Your task to perform on an android device: turn on the 12-hour format for clock Image 0: 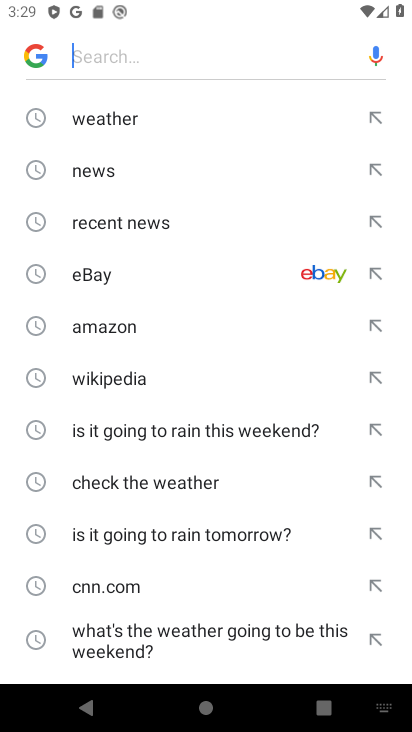
Step 0: press home button
Your task to perform on an android device: turn on the 12-hour format for clock Image 1: 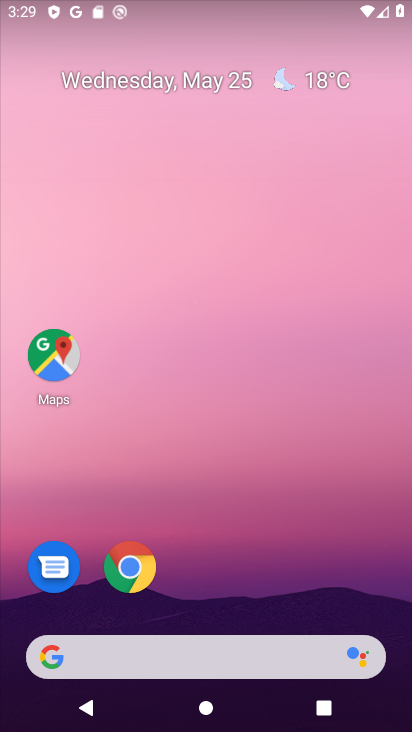
Step 1: drag from (373, 590) to (364, 156)
Your task to perform on an android device: turn on the 12-hour format for clock Image 2: 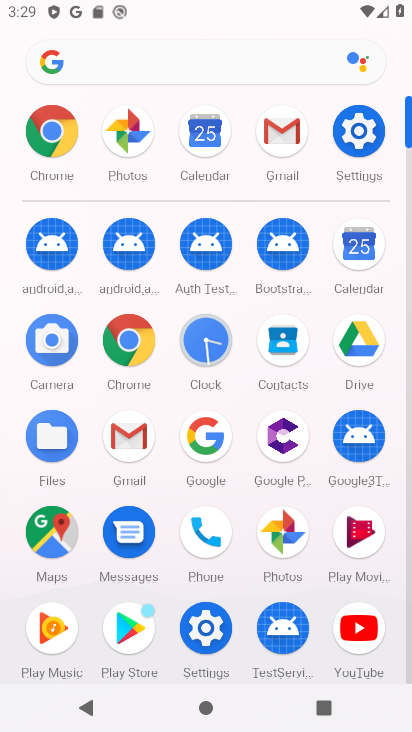
Step 2: click (213, 356)
Your task to perform on an android device: turn on the 12-hour format for clock Image 3: 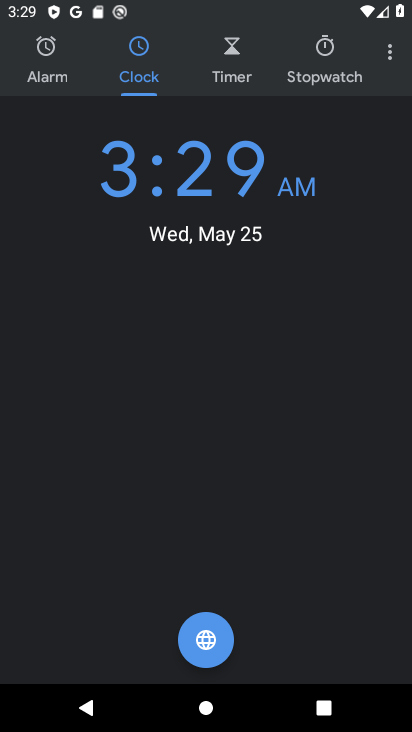
Step 3: click (389, 65)
Your task to perform on an android device: turn on the 12-hour format for clock Image 4: 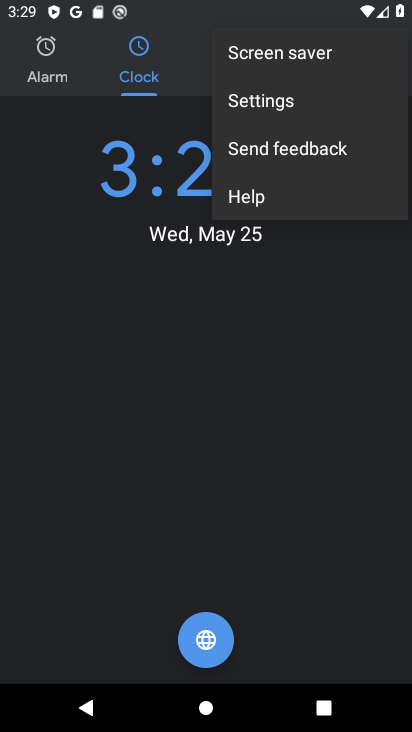
Step 4: click (322, 103)
Your task to perform on an android device: turn on the 12-hour format for clock Image 5: 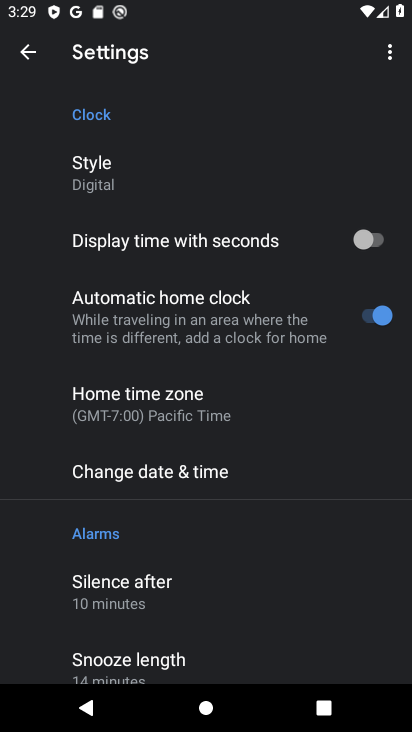
Step 5: drag from (308, 487) to (306, 388)
Your task to perform on an android device: turn on the 12-hour format for clock Image 6: 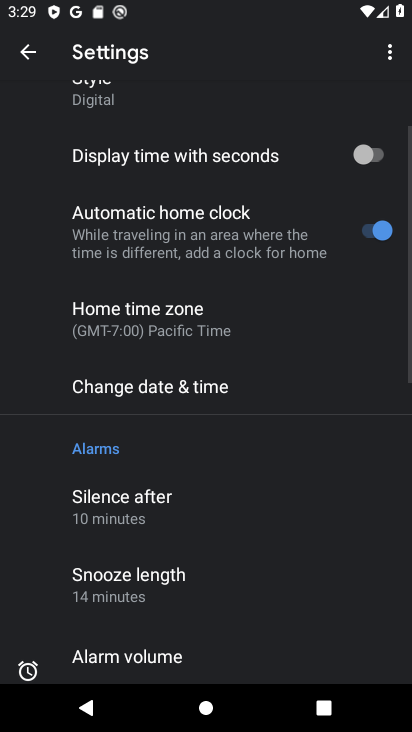
Step 6: drag from (317, 514) to (322, 418)
Your task to perform on an android device: turn on the 12-hour format for clock Image 7: 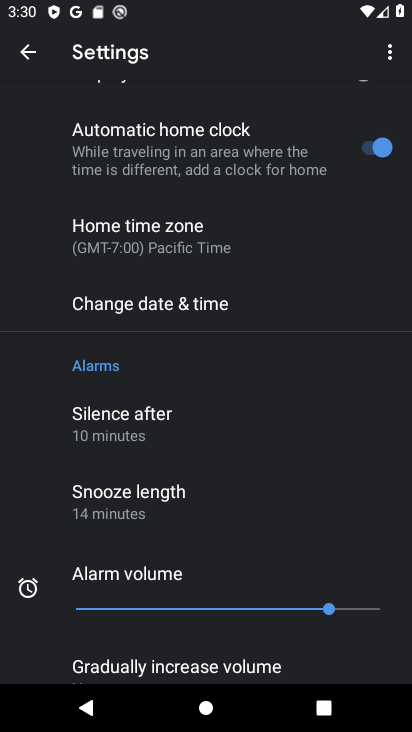
Step 7: click (248, 316)
Your task to perform on an android device: turn on the 12-hour format for clock Image 8: 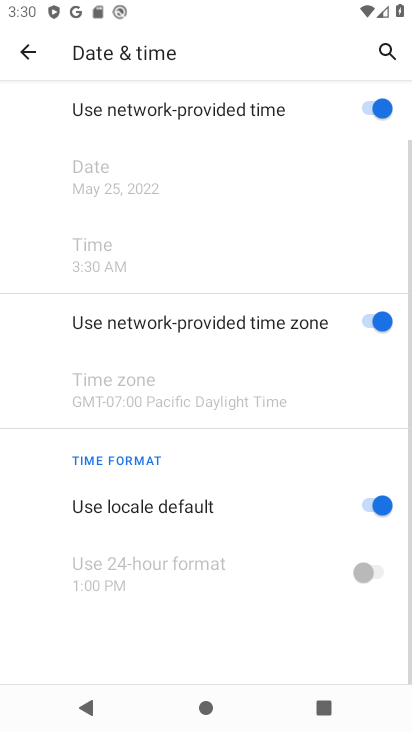
Step 8: drag from (261, 457) to (247, 351)
Your task to perform on an android device: turn on the 12-hour format for clock Image 9: 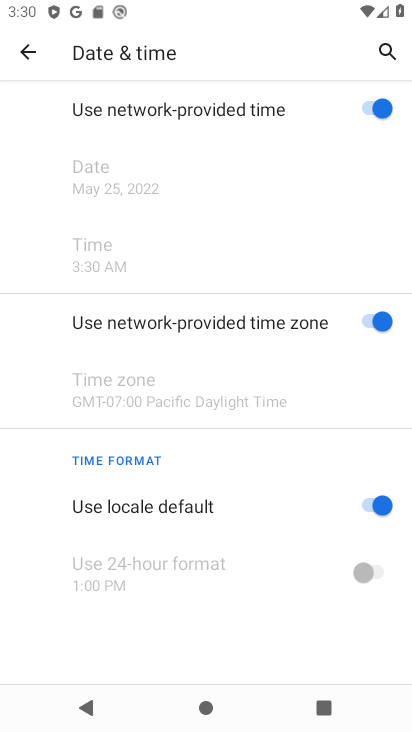
Step 9: click (369, 503)
Your task to perform on an android device: turn on the 12-hour format for clock Image 10: 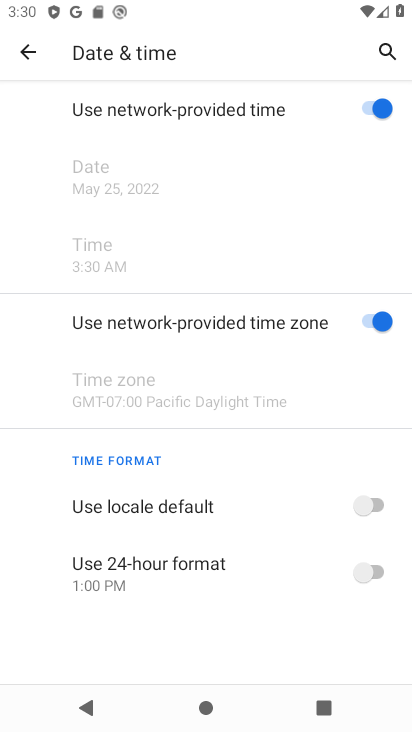
Step 10: task complete